Your task to perform on an android device: make emails show in primary in the gmail app Image 0: 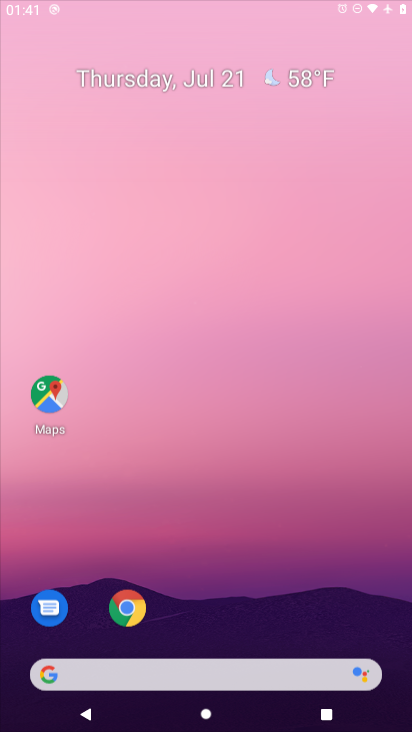
Step 0: press home button
Your task to perform on an android device: make emails show in primary in the gmail app Image 1: 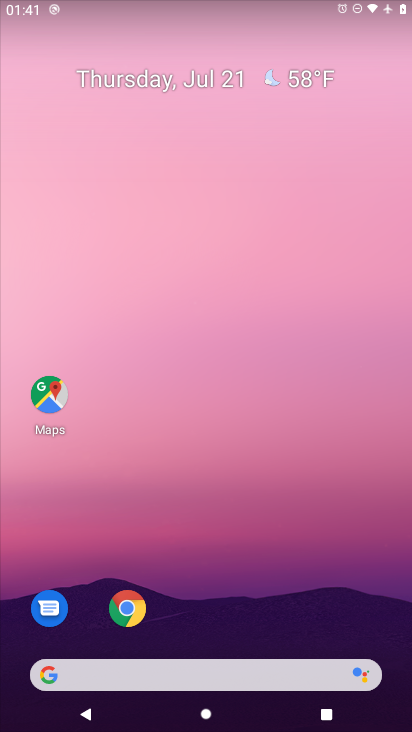
Step 1: drag from (246, 648) to (347, 28)
Your task to perform on an android device: make emails show in primary in the gmail app Image 2: 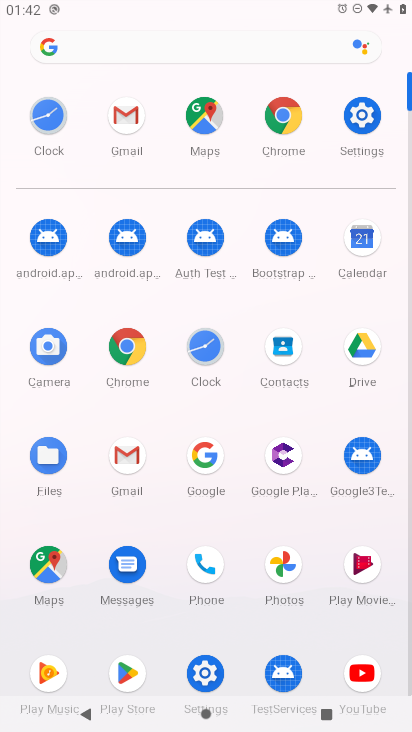
Step 2: click (124, 125)
Your task to perform on an android device: make emails show in primary in the gmail app Image 3: 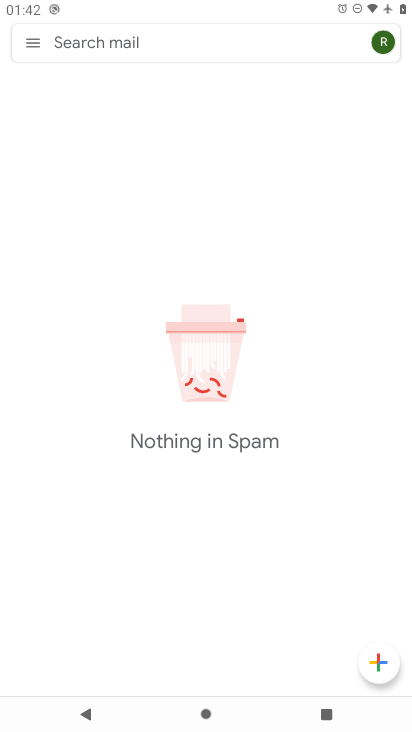
Step 3: click (28, 43)
Your task to perform on an android device: make emails show in primary in the gmail app Image 4: 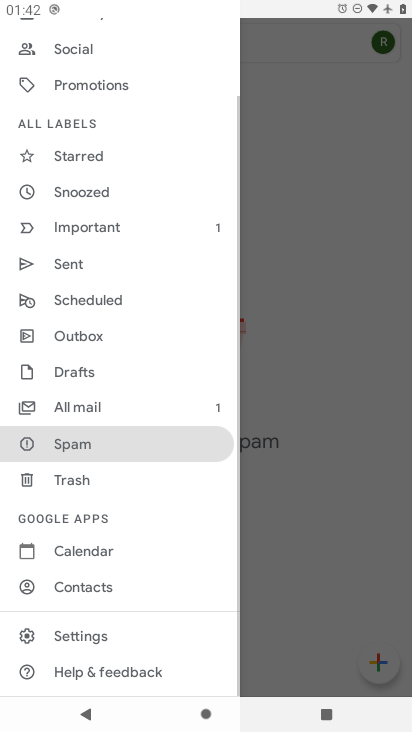
Step 4: click (83, 633)
Your task to perform on an android device: make emails show in primary in the gmail app Image 5: 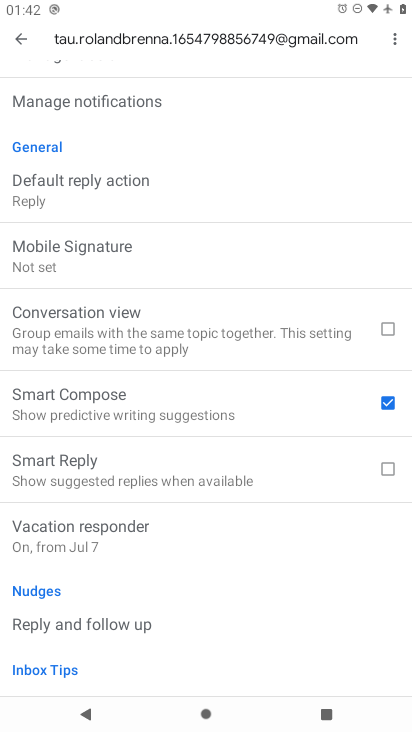
Step 5: drag from (291, 145) to (139, 731)
Your task to perform on an android device: make emails show in primary in the gmail app Image 6: 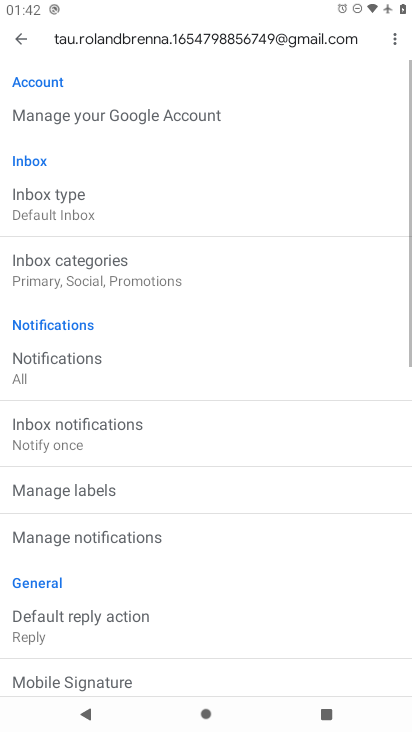
Step 6: drag from (200, 116) to (181, 725)
Your task to perform on an android device: make emails show in primary in the gmail app Image 7: 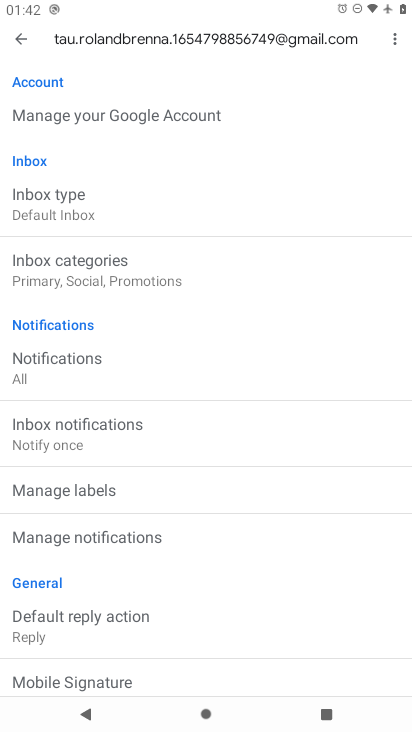
Step 7: click (75, 266)
Your task to perform on an android device: make emails show in primary in the gmail app Image 8: 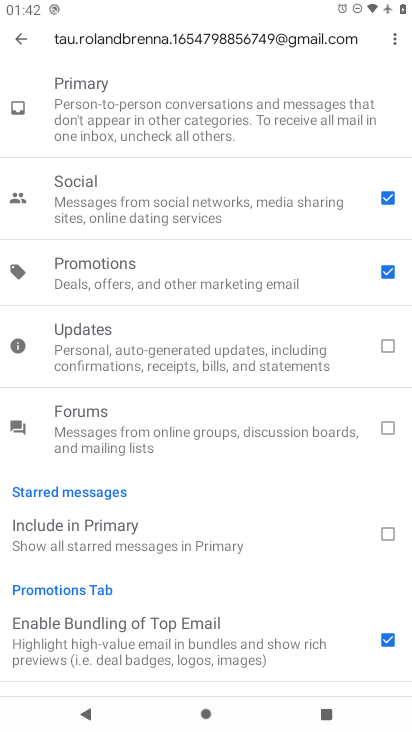
Step 8: click (385, 192)
Your task to perform on an android device: make emails show in primary in the gmail app Image 9: 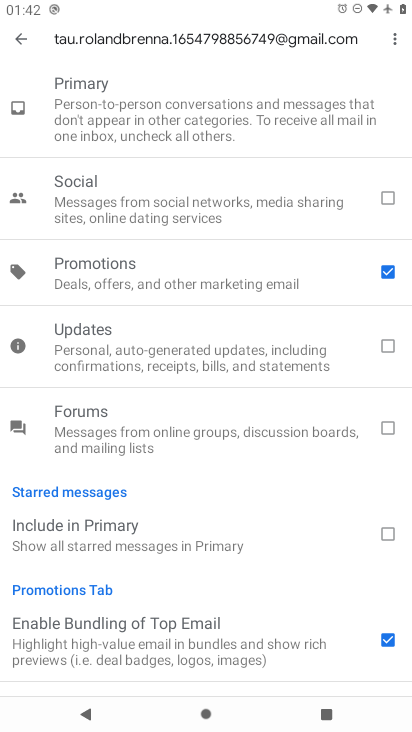
Step 9: click (394, 271)
Your task to perform on an android device: make emails show in primary in the gmail app Image 10: 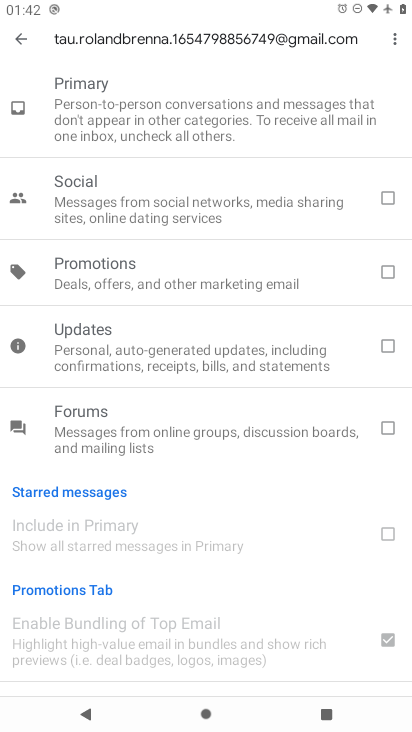
Step 10: task complete